Your task to perform on an android device: create a new album in the google photos Image 0: 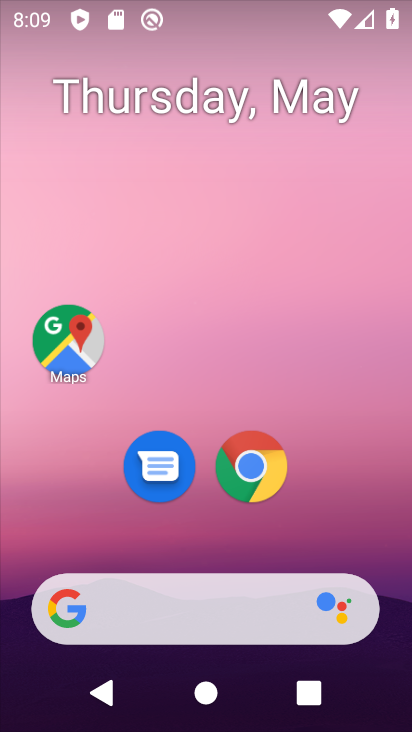
Step 0: drag from (387, 520) to (307, 102)
Your task to perform on an android device: create a new album in the google photos Image 1: 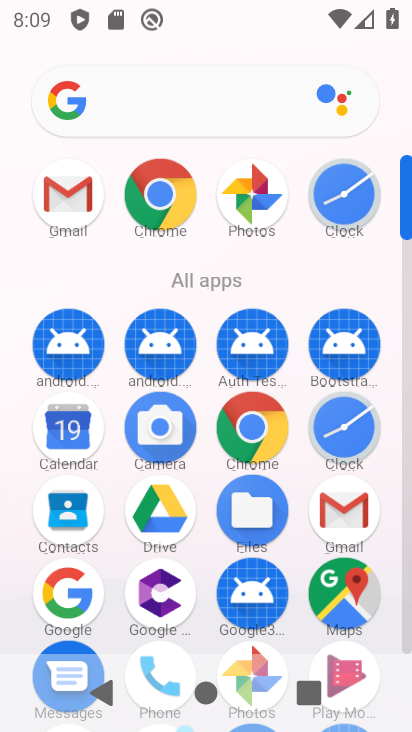
Step 1: click (255, 191)
Your task to perform on an android device: create a new album in the google photos Image 2: 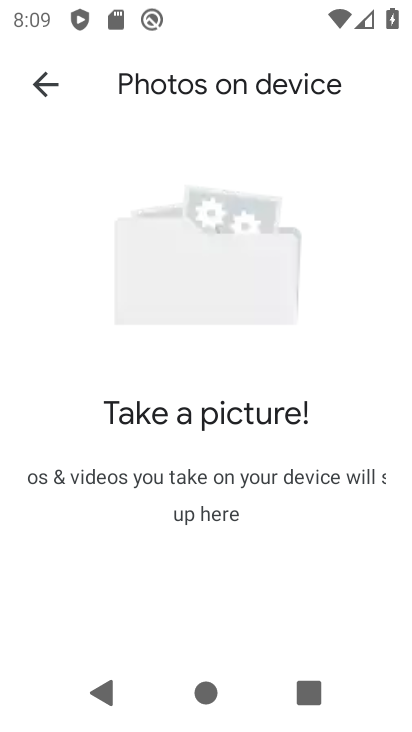
Step 2: click (55, 96)
Your task to perform on an android device: create a new album in the google photos Image 3: 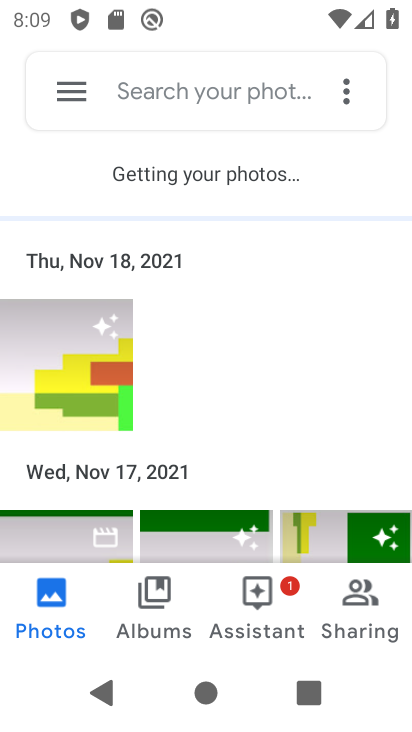
Step 3: click (254, 605)
Your task to perform on an android device: create a new album in the google photos Image 4: 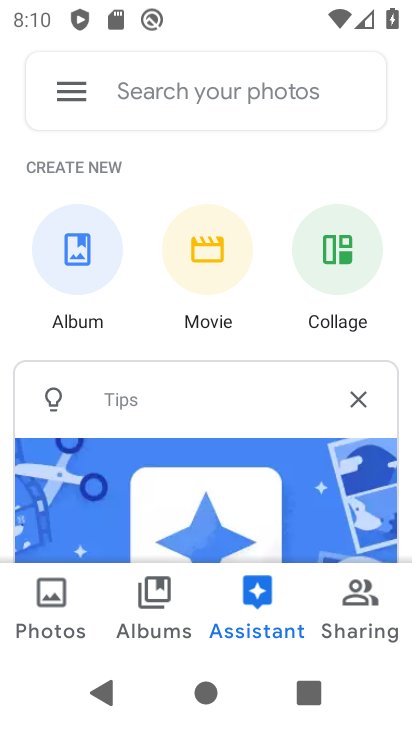
Step 4: click (67, 274)
Your task to perform on an android device: create a new album in the google photos Image 5: 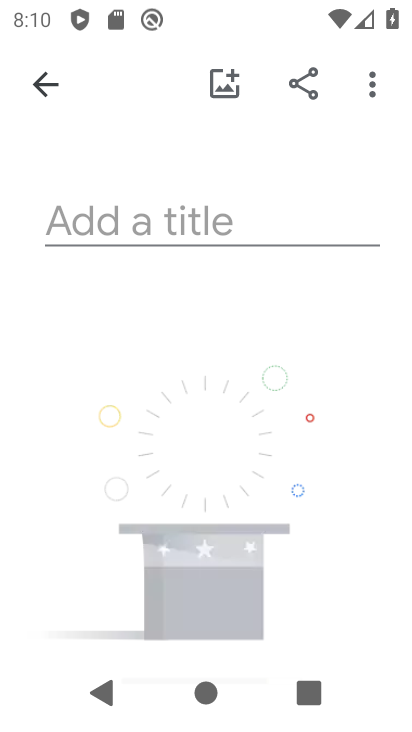
Step 5: click (118, 231)
Your task to perform on an android device: create a new album in the google photos Image 6: 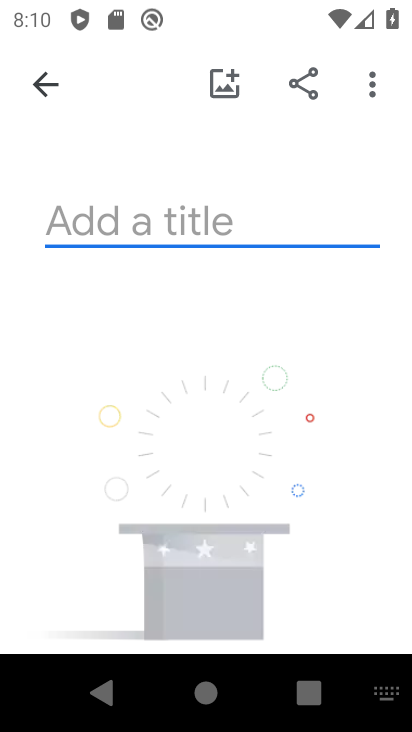
Step 6: type "kbkkjjn"
Your task to perform on an android device: create a new album in the google photos Image 7: 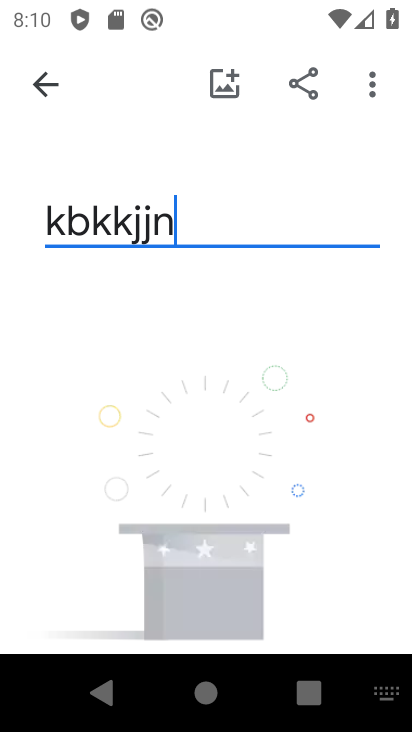
Step 7: drag from (384, 559) to (360, 170)
Your task to perform on an android device: create a new album in the google photos Image 8: 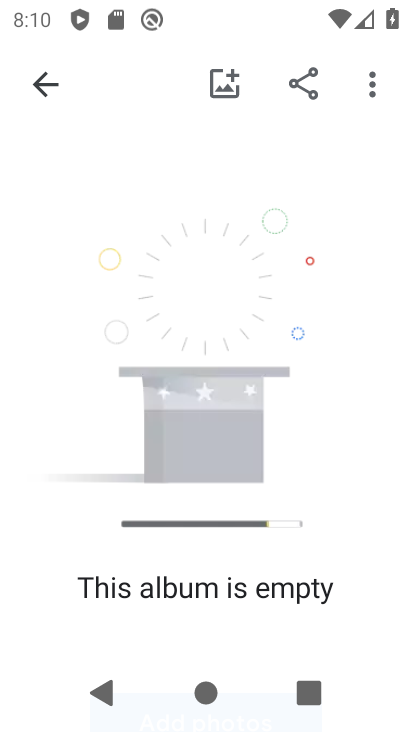
Step 8: click (235, 93)
Your task to perform on an android device: create a new album in the google photos Image 9: 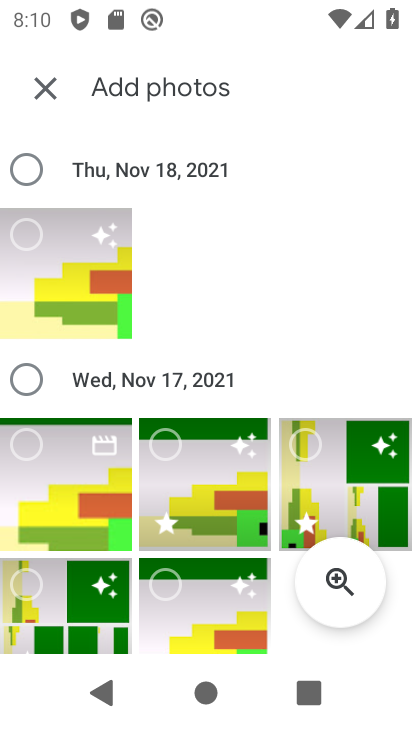
Step 9: click (59, 305)
Your task to perform on an android device: create a new album in the google photos Image 10: 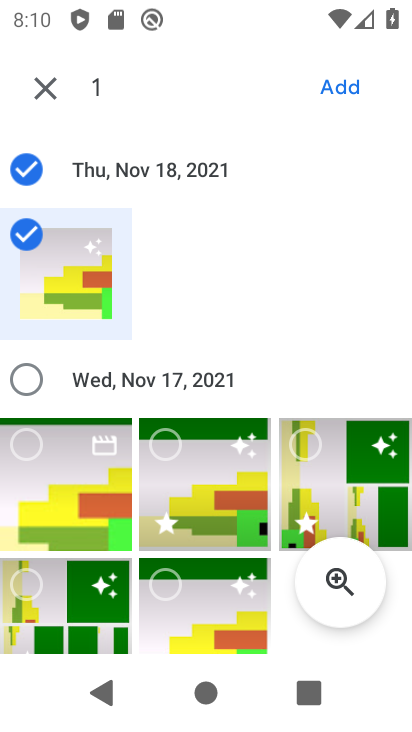
Step 10: click (335, 89)
Your task to perform on an android device: create a new album in the google photos Image 11: 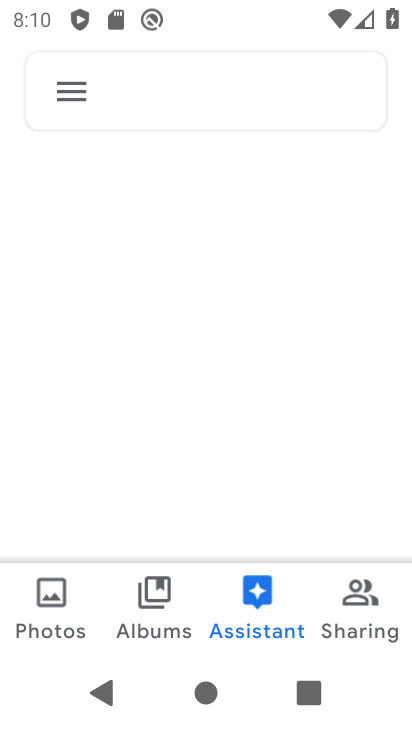
Step 11: task complete